Your task to perform on an android device: add a label to a message in the gmail app Image 0: 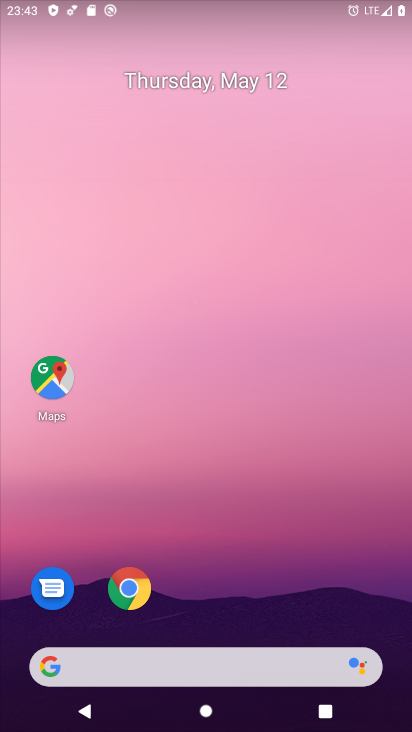
Step 0: drag from (223, 608) to (285, 220)
Your task to perform on an android device: add a label to a message in the gmail app Image 1: 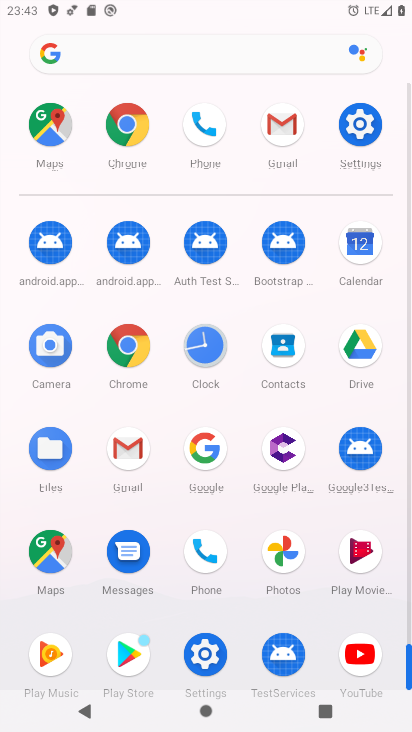
Step 1: click (121, 444)
Your task to perform on an android device: add a label to a message in the gmail app Image 2: 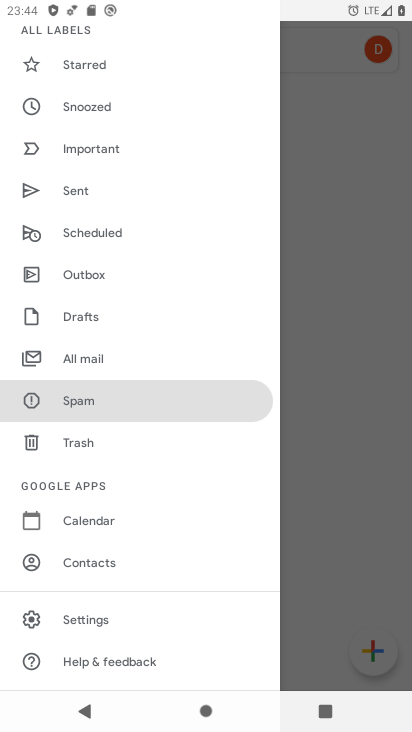
Step 2: task complete